Your task to perform on an android device: Turn off the flashlight Image 0: 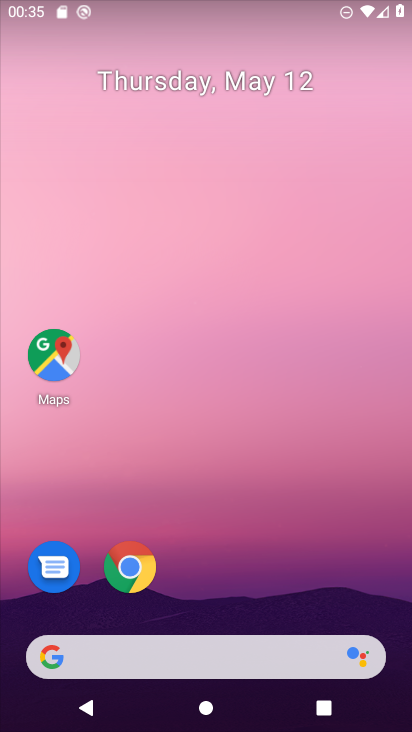
Step 0: drag from (195, 6) to (269, 294)
Your task to perform on an android device: Turn off the flashlight Image 1: 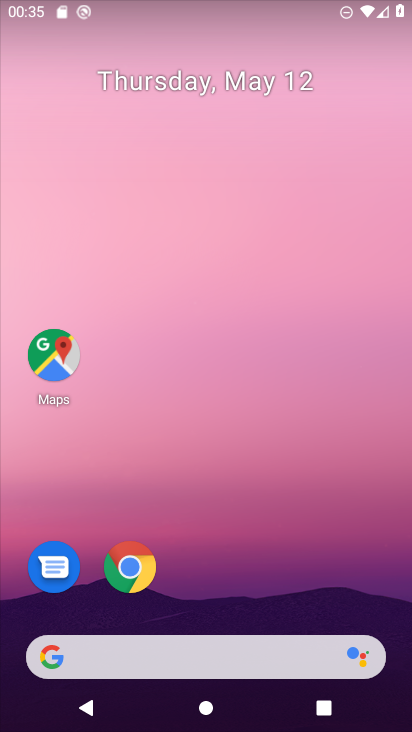
Step 1: task complete